Your task to perform on an android device: Open calendar and show me the third week of next month Image 0: 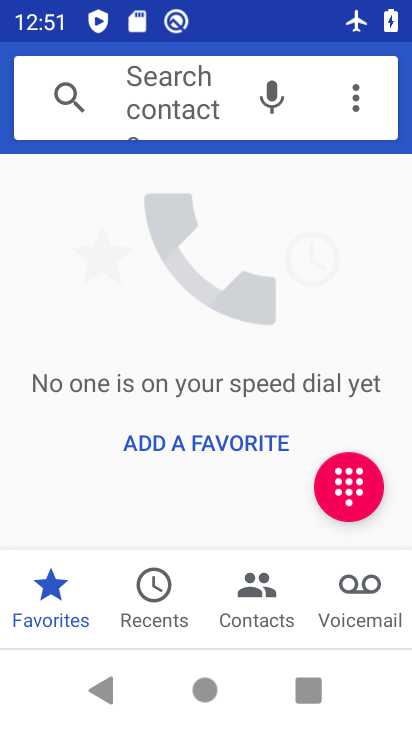
Step 0: press home button
Your task to perform on an android device: Open calendar and show me the third week of next month Image 1: 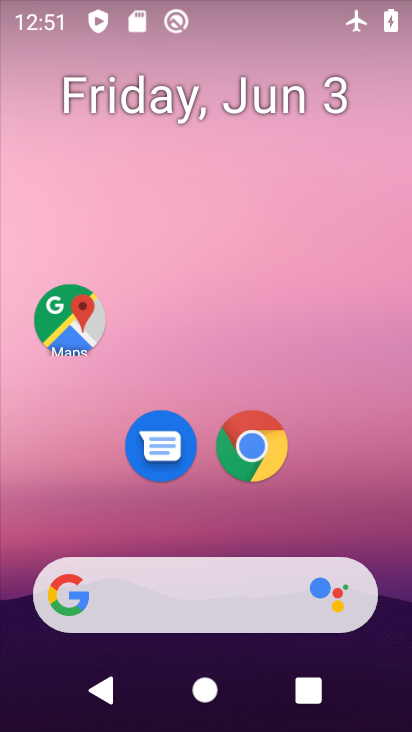
Step 1: drag from (154, 680) to (244, 56)
Your task to perform on an android device: Open calendar and show me the third week of next month Image 2: 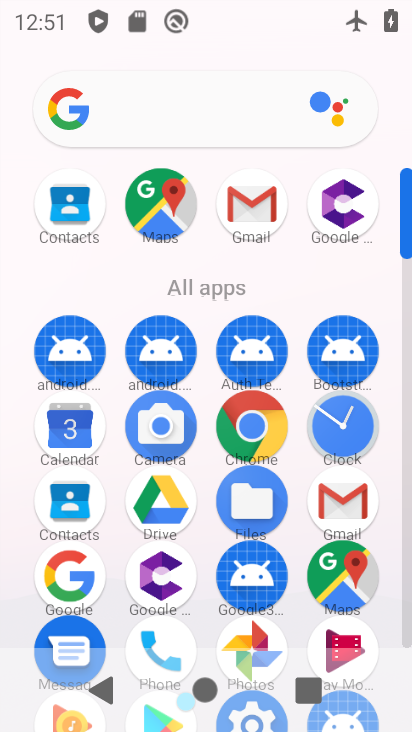
Step 2: click (55, 432)
Your task to perform on an android device: Open calendar and show me the third week of next month Image 3: 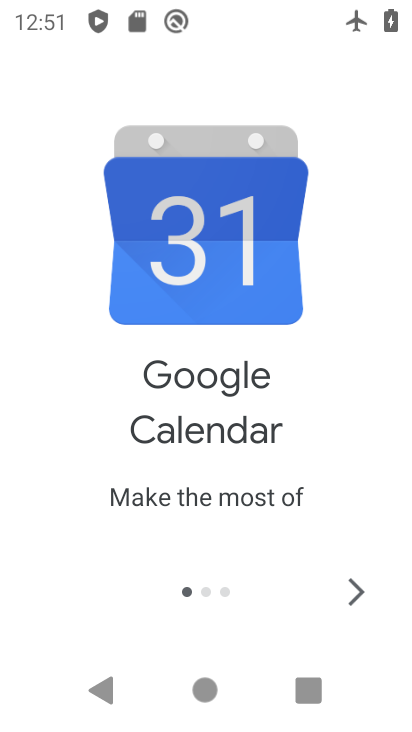
Step 3: click (369, 589)
Your task to perform on an android device: Open calendar and show me the third week of next month Image 4: 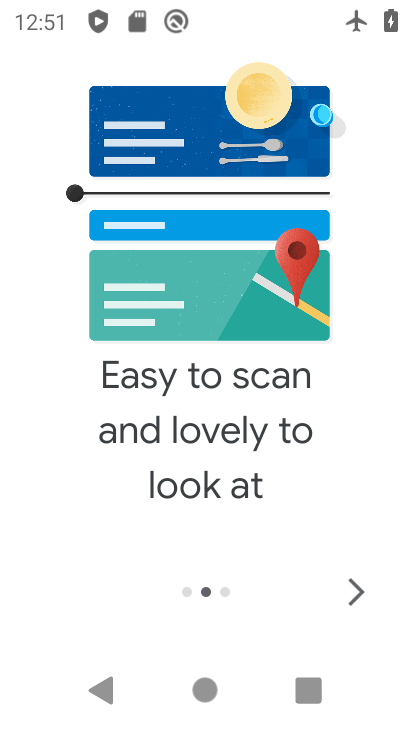
Step 4: click (369, 589)
Your task to perform on an android device: Open calendar and show me the third week of next month Image 5: 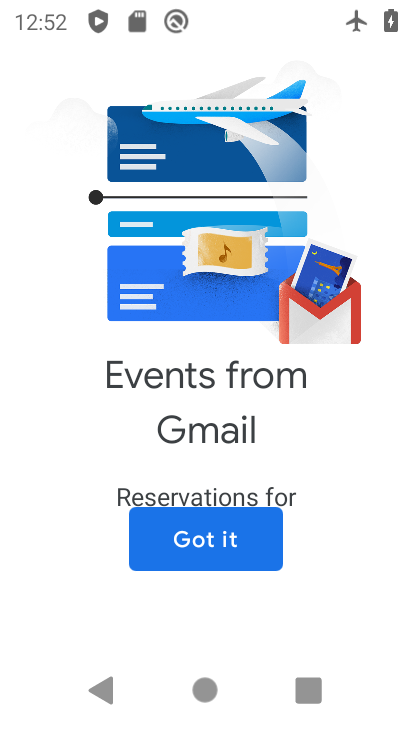
Step 5: click (155, 527)
Your task to perform on an android device: Open calendar and show me the third week of next month Image 6: 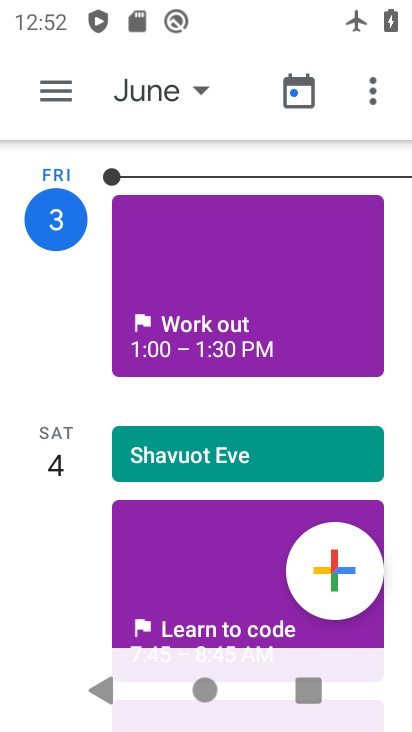
Step 6: click (139, 90)
Your task to perform on an android device: Open calendar and show me the third week of next month Image 7: 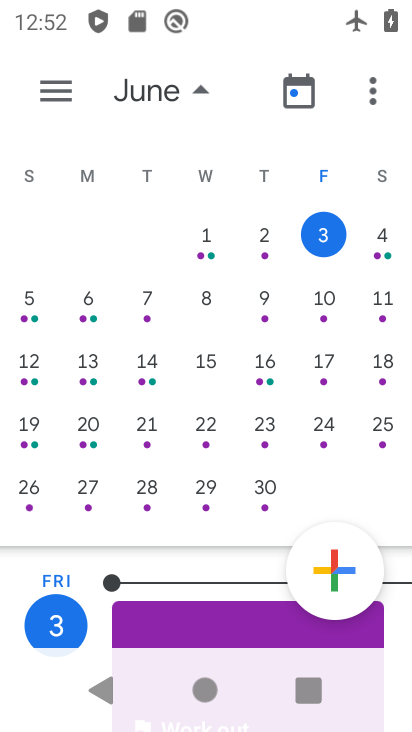
Step 7: drag from (336, 428) to (26, 441)
Your task to perform on an android device: Open calendar and show me the third week of next month Image 8: 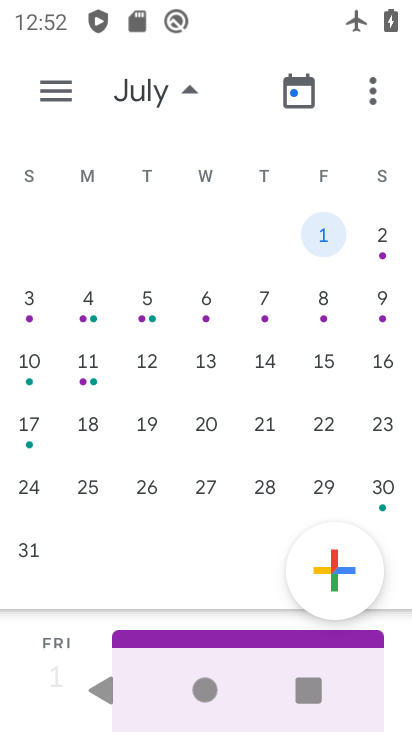
Step 8: click (26, 362)
Your task to perform on an android device: Open calendar and show me the third week of next month Image 9: 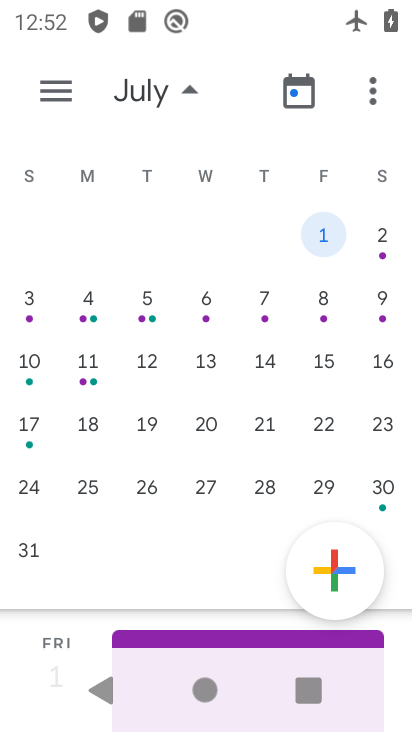
Step 9: click (34, 364)
Your task to perform on an android device: Open calendar and show me the third week of next month Image 10: 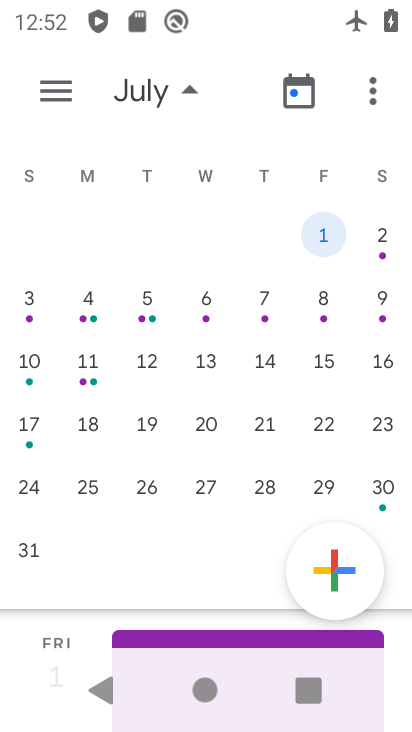
Step 10: click (31, 363)
Your task to perform on an android device: Open calendar and show me the third week of next month Image 11: 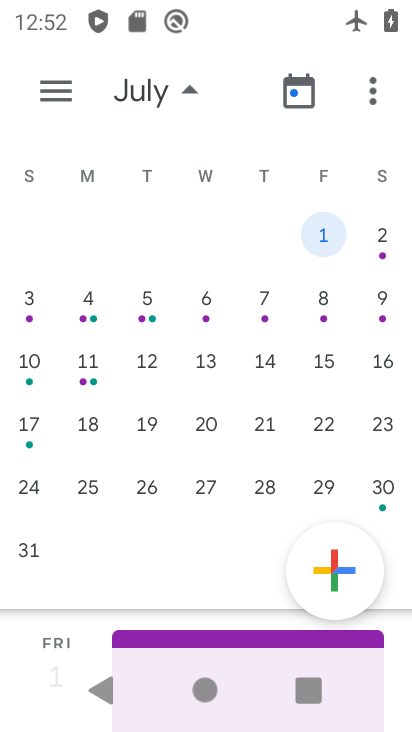
Step 11: click (31, 363)
Your task to perform on an android device: Open calendar and show me the third week of next month Image 12: 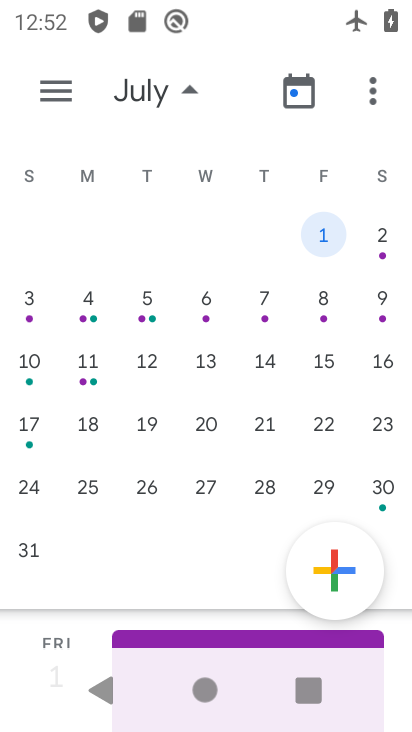
Step 12: click (28, 357)
Your task to perform on an android device: Open calendar and show me the third week of next month Image 13: 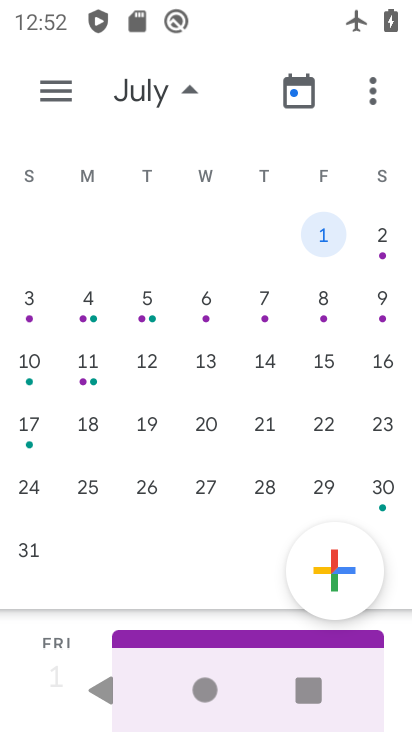
Step 13: click (31, 370)
Your task to perform on an android device: Open calendar and show me the third week of next month Image 14: 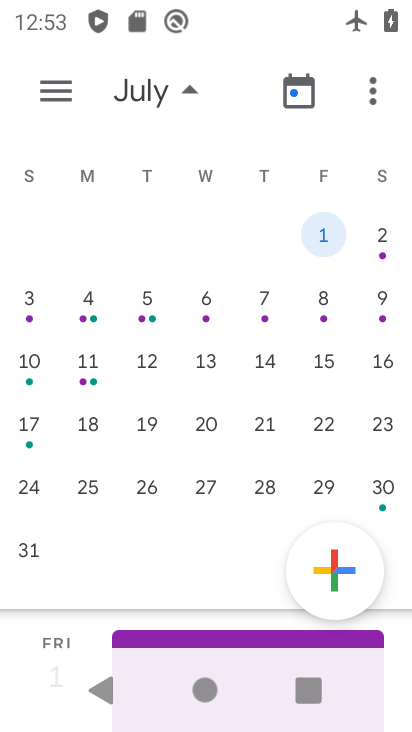
Step 14: click (31, 361)
Your task to perform on an android device: Open calendar and show me the third week of next month Image 15: 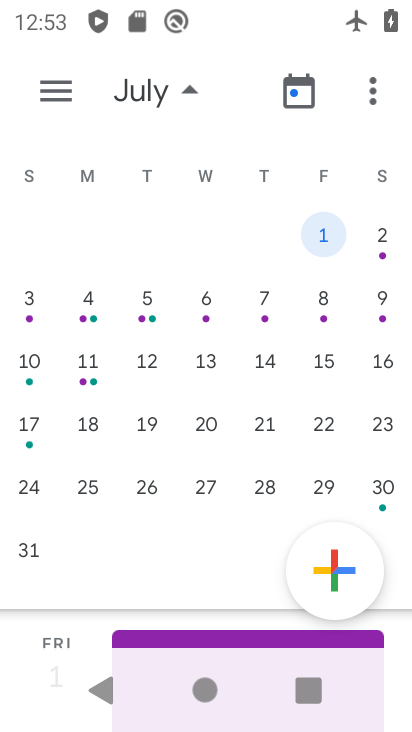
Step 15: click (30, 370)
Your task to perform on an android device: Open calendar and show me the third week of next month Image 16: 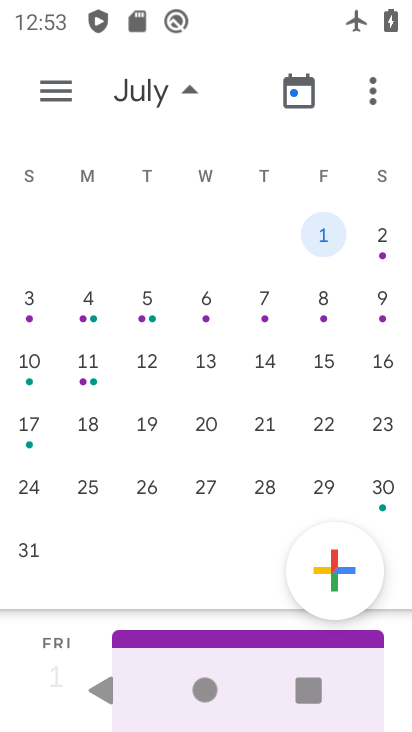
Step 16: click (34, 364)
Your task to perform on an android device: Open calendar and show me the third week of next month Image 17: 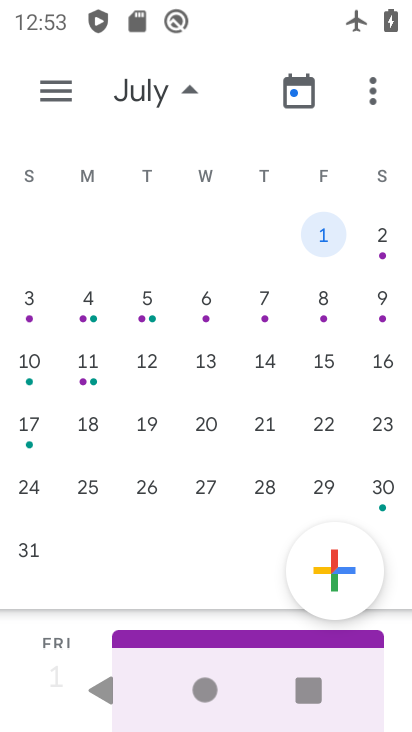
Step 17: click (34, 364)
Your task to perform on an android device: Open calendar and show me the third week of next month Image 18: 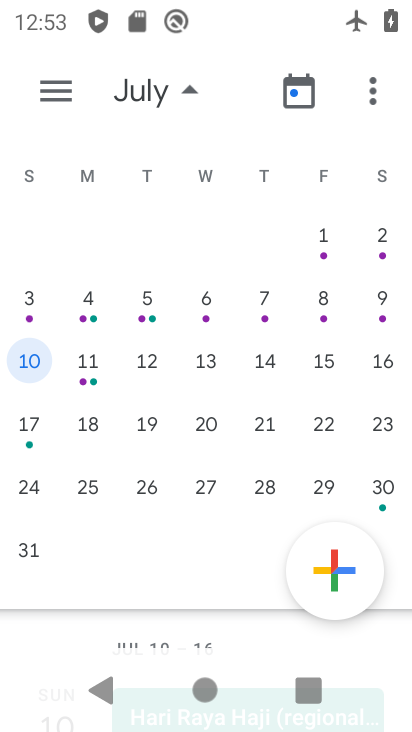
Step 18: task complete